Your task to perform on an android device: Go to network settings Image 0: 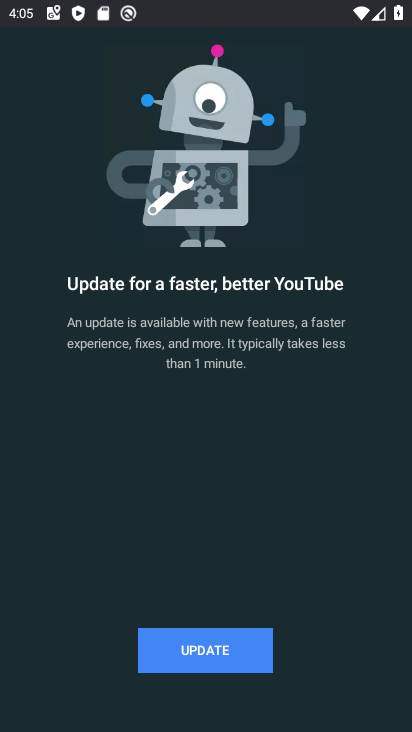
Step 0: press home button
Your task to perform on an android device: Go to network settings Image 1: 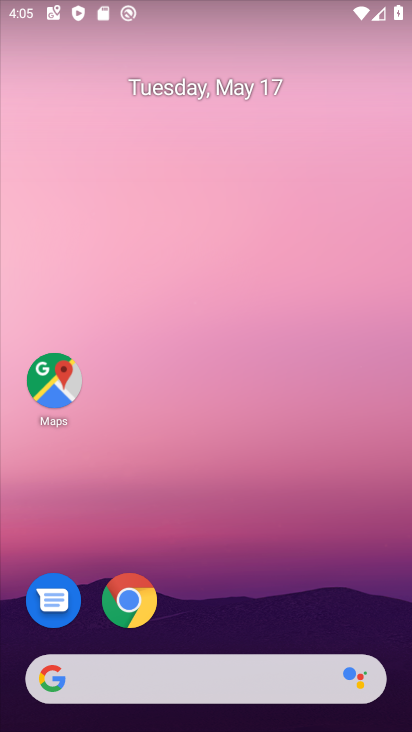
Step 1: drag from (226, 630) to (278, 105)
Your task to perform on an android device: Go to network settings Image 2: 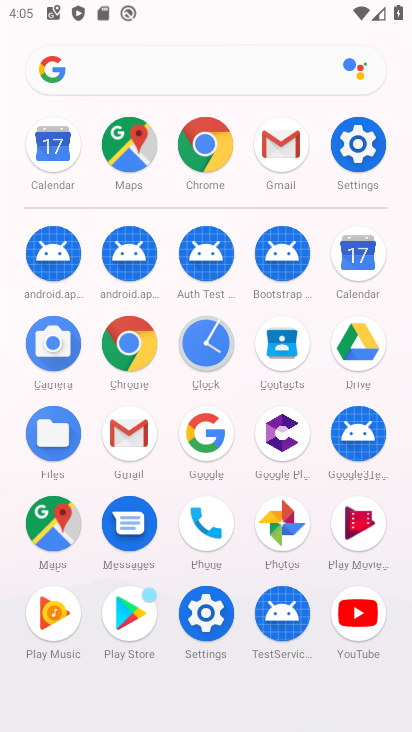
Step 2: click (202, 627)
Your task to perform on an android device: Go to network settings Image 3: 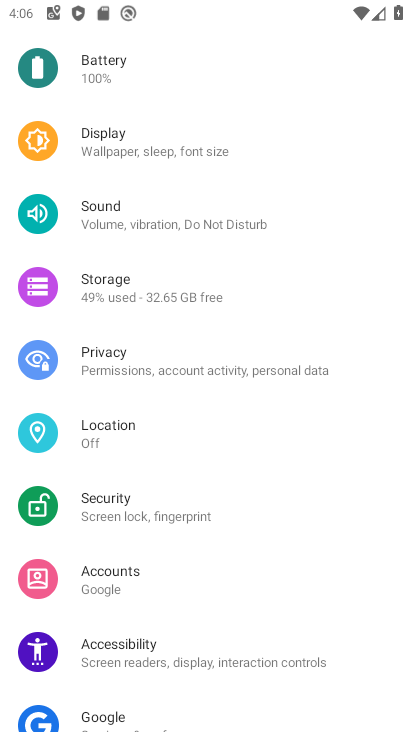
Step 3: drag from (144, 156) to (130, 618)
Your task to perform on an android device: Go to network settings Image 4: 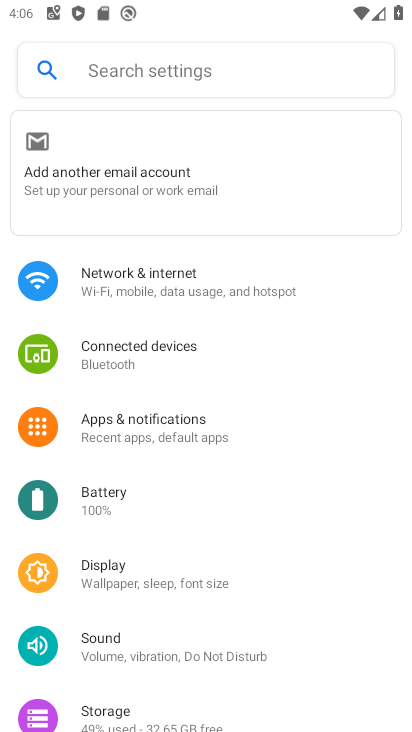
Step 4: click (121, 301)
Your task to perform on an android device: Go to network settings Image 5: 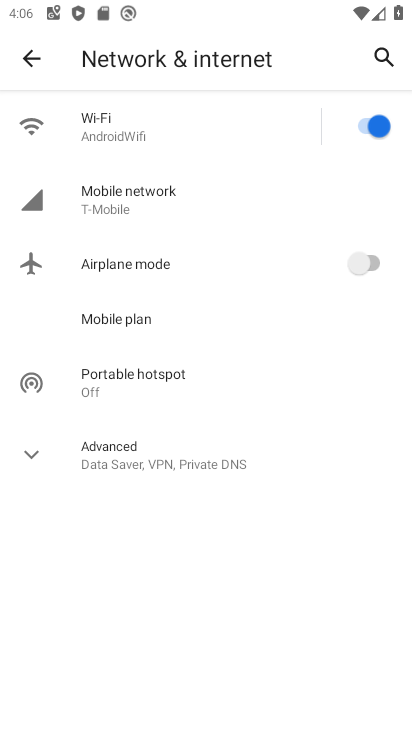
Step 5: task complete